Your task to perform on an android device: check storage Image 0: 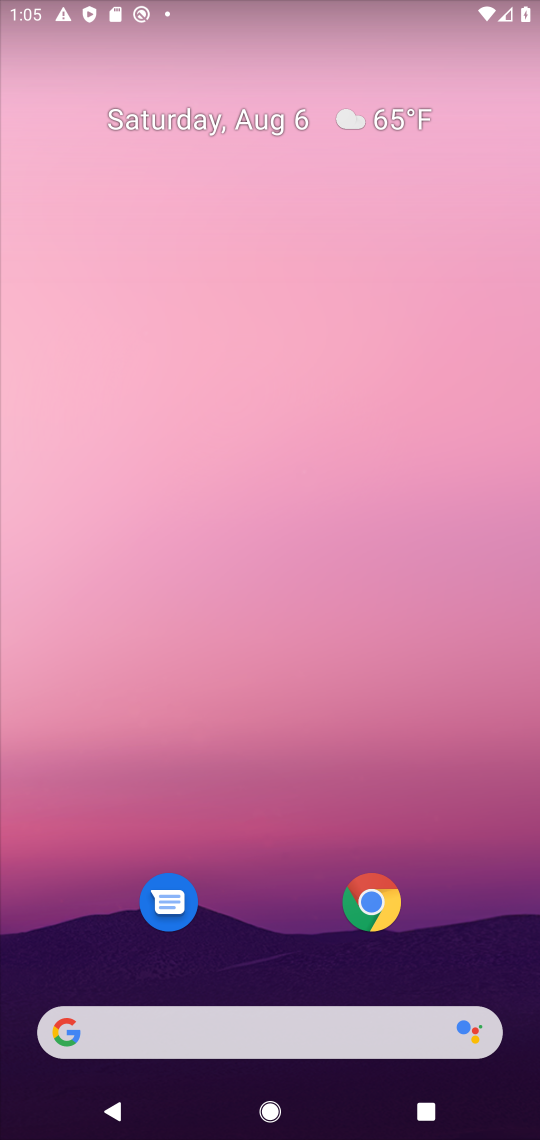
Step 0: click (385, 746)
Your task to perform on an android device: check storage Image 1: 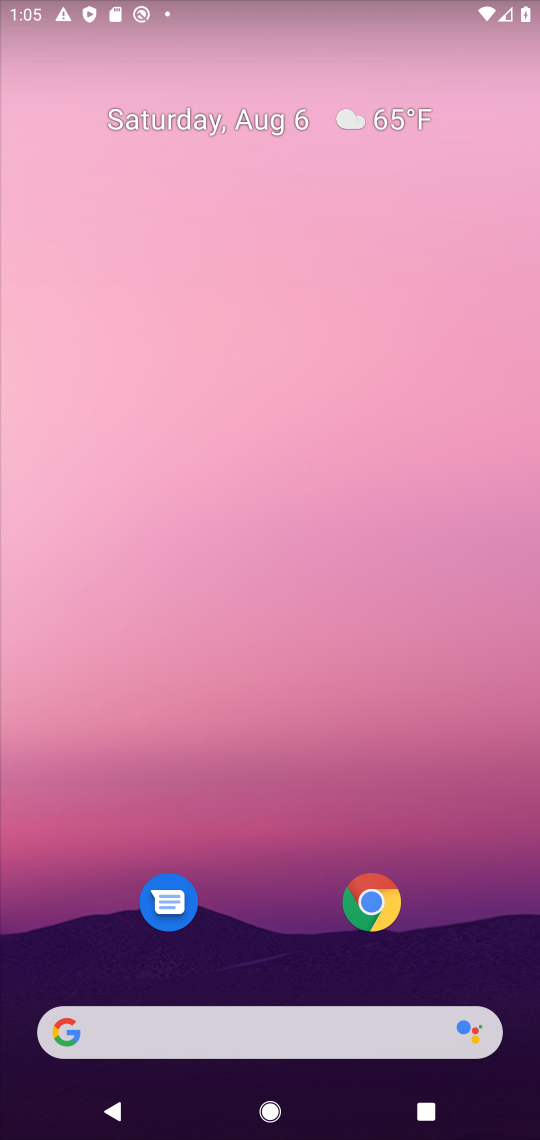
Step 1: drag from (288, 859) to (248, 5)
Your task to perform on an android device: check storage Image 2: 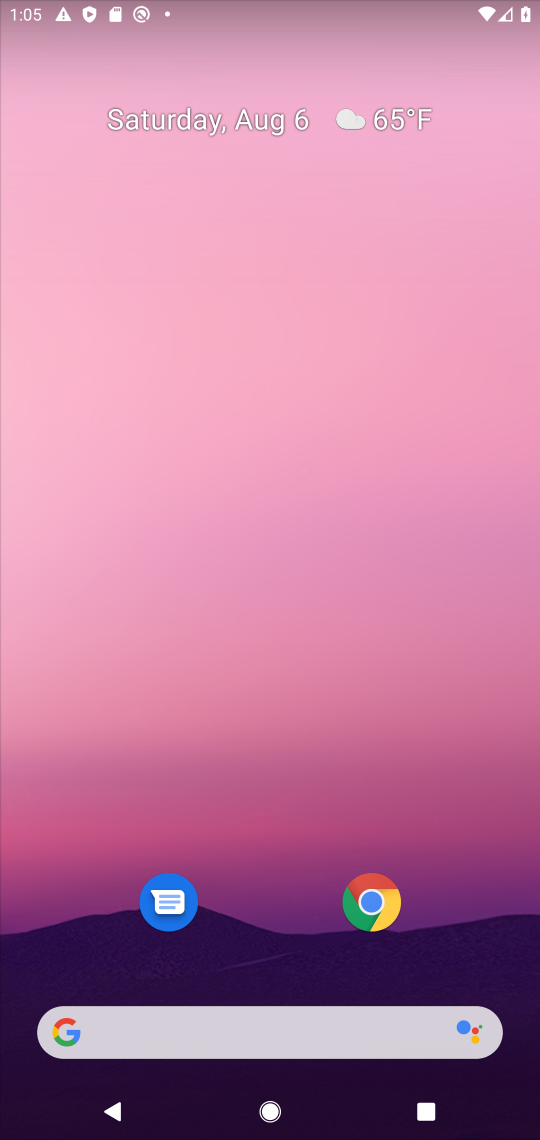
Step 2: drag from (269, 940) to (264, 65)
Your task to perform on an android device: check storage Image 3: 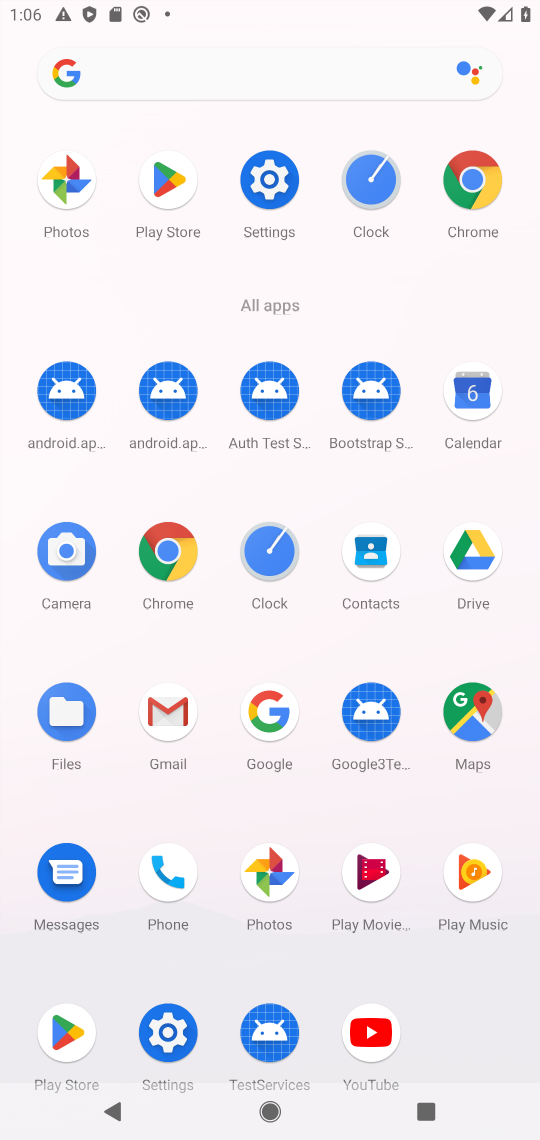
Step 3: click (268, 169)
Your task to perform on an android device: check storage Image 4: 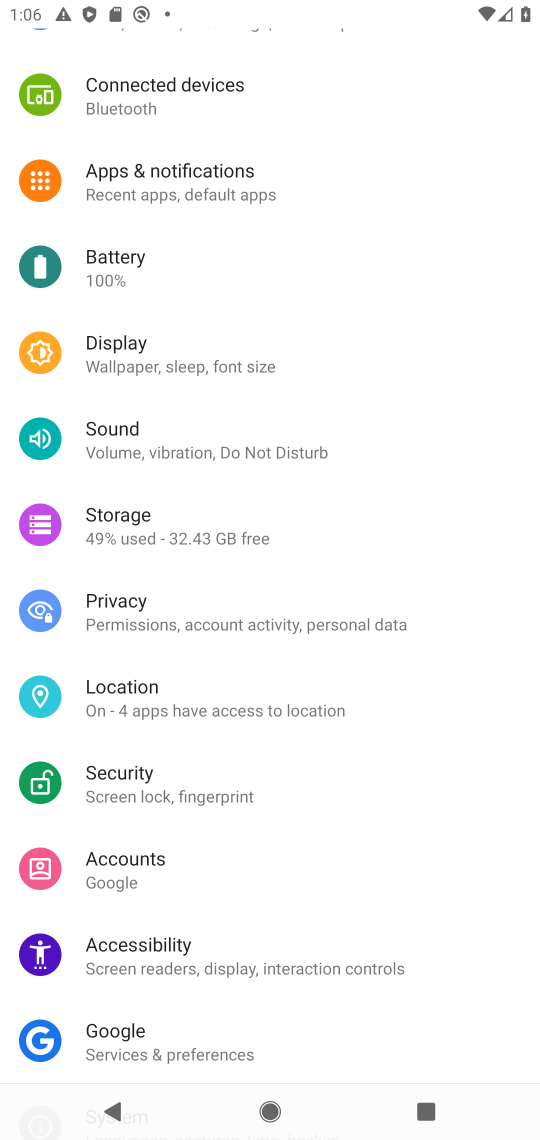
Step 4: click (121, 515)
Your task to perform on an android device: check storage Image 5: 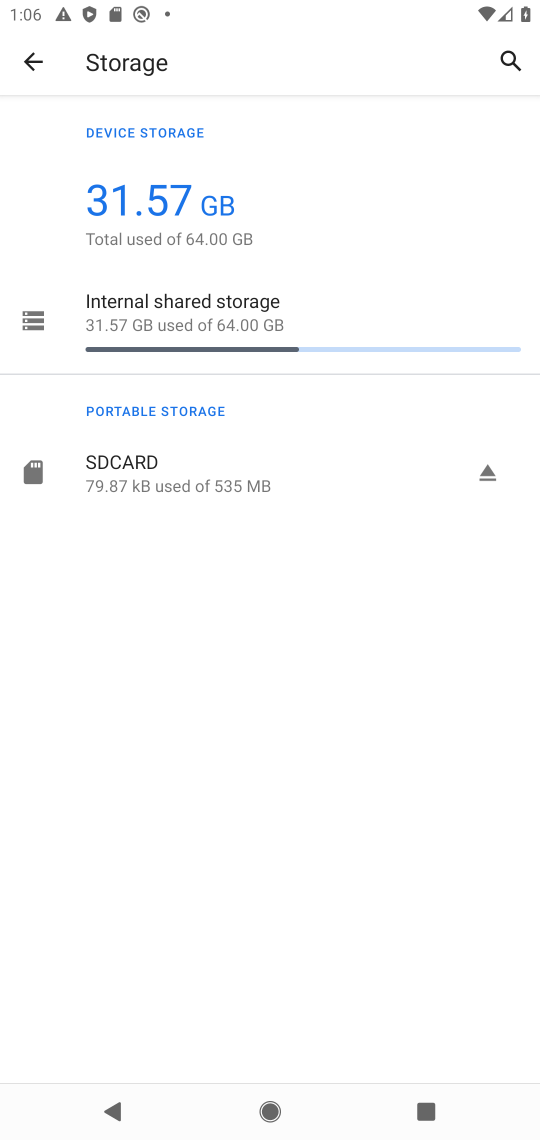
Step 5: task complete